Your task to perform on an android device: Go to settings Image 0: 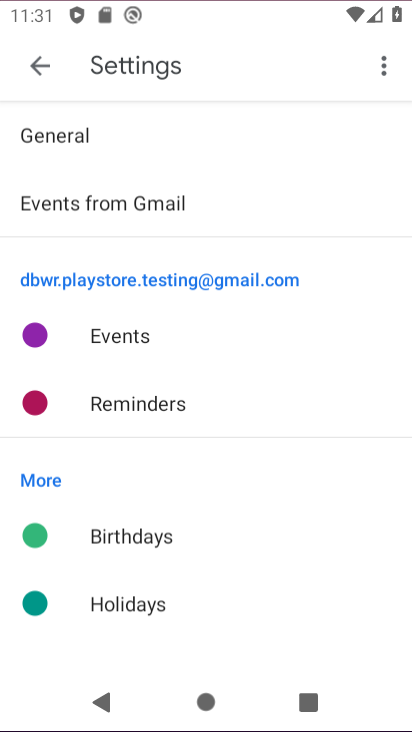
Step 0: drag from (214, 639) to (157, 6)
Your task to perform on an android device: Go to settings Image 1: 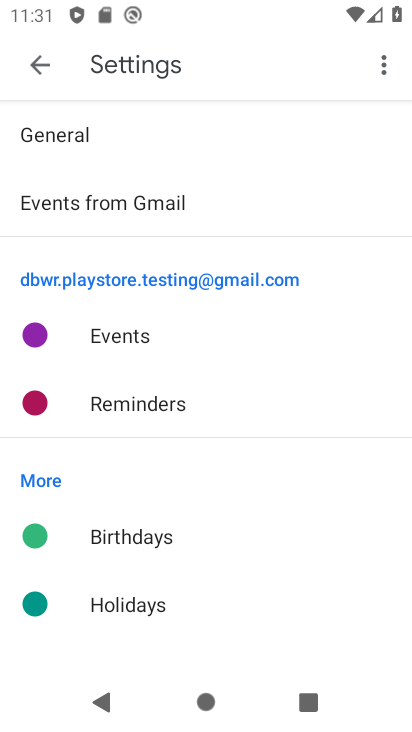
Step 1: press home button
Your task to perform on an android device: Go to settings Image 2: 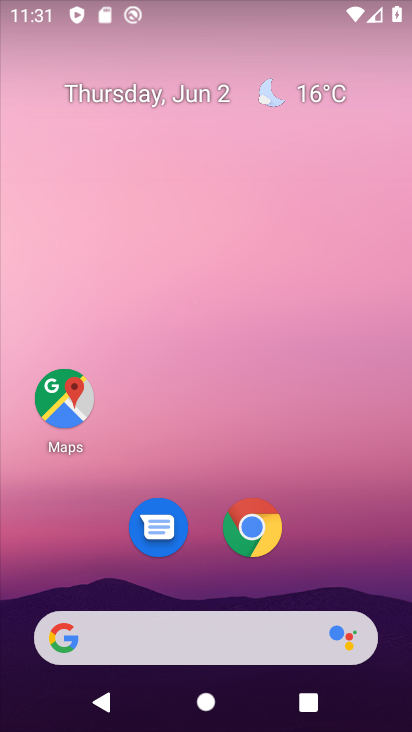
Step 2: drag from (226, 644) to (232, 227)
Your task to perform on an android device: Go to settings Image 3: 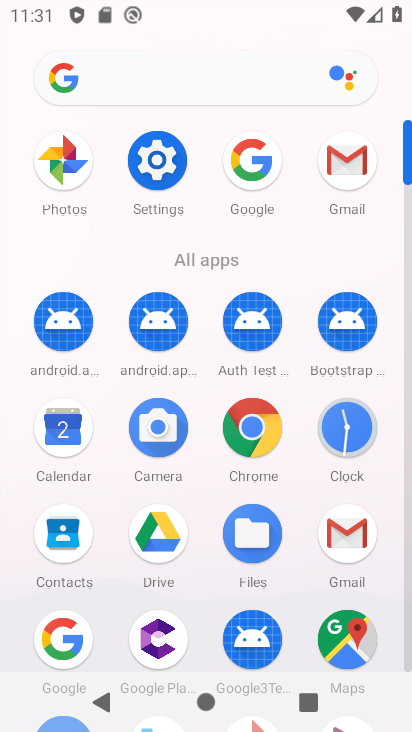
Step 3: click (166, 173)
Your task to perform on an android device: Go to settings Image 4: 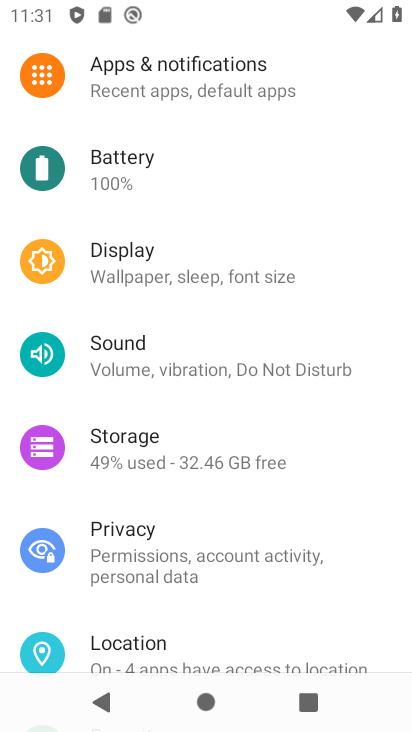
Step 4: task complete